Your task to perform on an android device: Open the web browser Image 0: 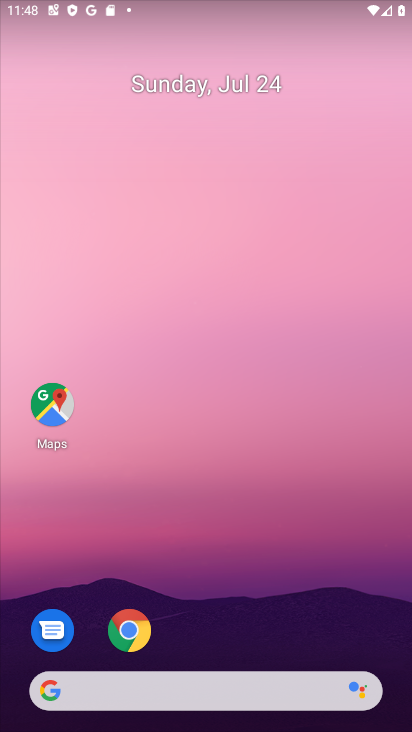
Step 0: drag from (225, 630) to (232, 55)
Your task to perform on an android device: Open the web browser Image 1: 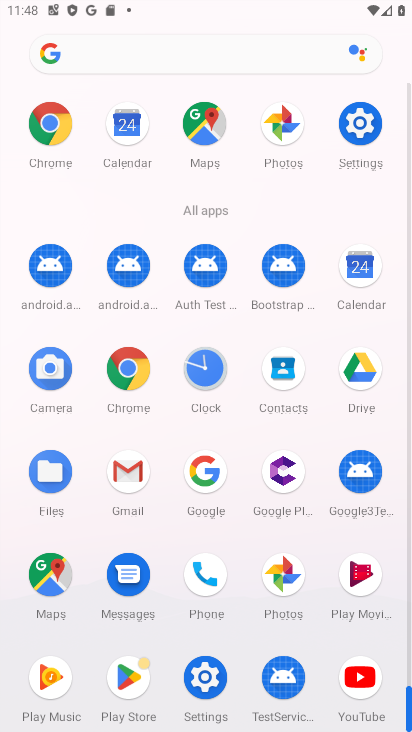
Step 1: click (105, 356)
Your task to perform on an android device: Open the web browser Image 2: 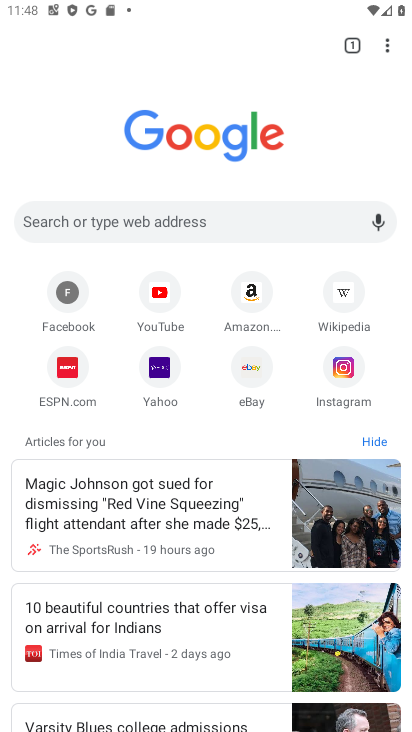
Step 2: click (220, 214)
Your task to perform on an android device: Open the web browser Image 3: 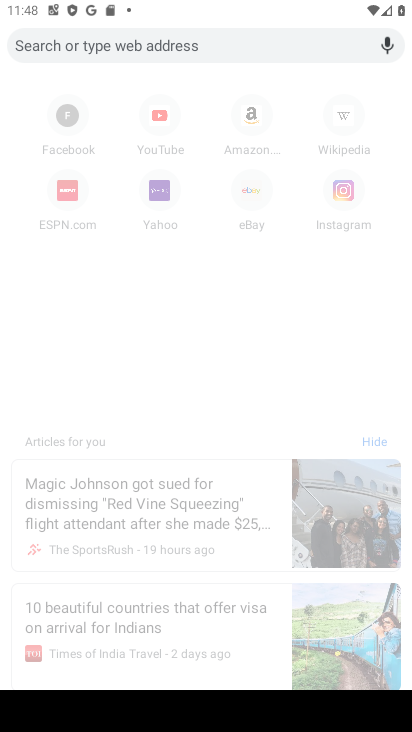
Step 3: type " web browser"
Your task to perform on an android device: Open the web browser Image 4: 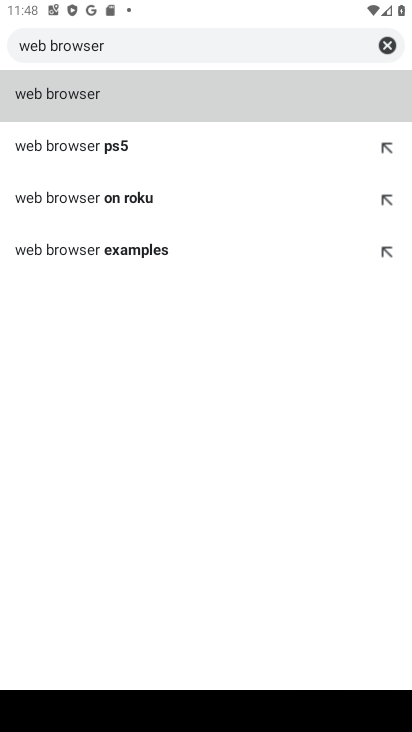
Step 4: click (41, 87)
Your task to perform on an android device: Open the web browser Image 5: 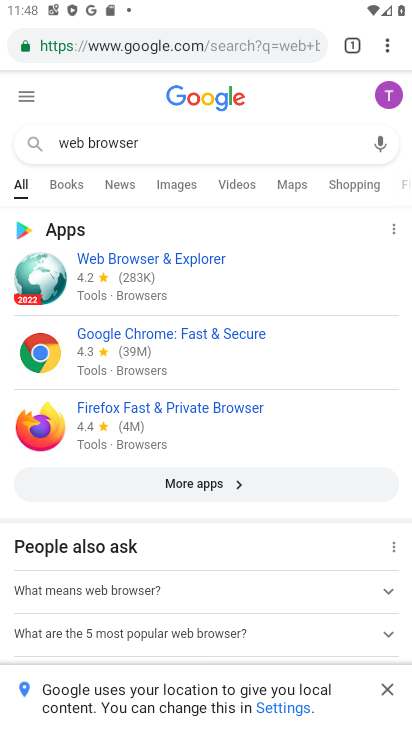
Step 5: task complete